Your task to perform on an android device: open app "LinkedIn" (install if not already installed) and enter user name: "dirt@inbox.com" and password: "receptionist" Image 0: 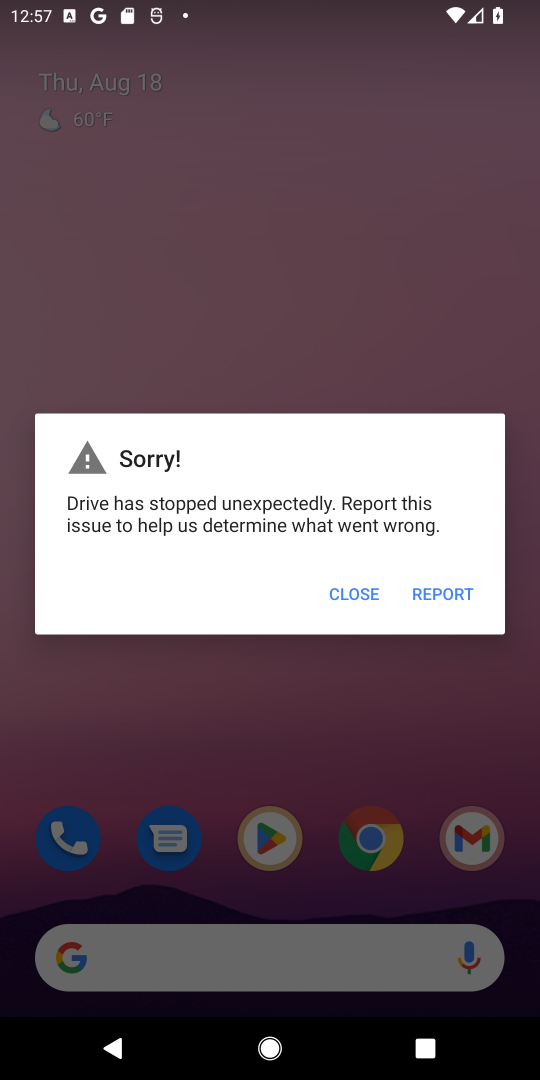
Step 0: click (356, 591)
Your task to perform on an android device: open app "LinkedIn" (install if not already installed) and enter user name: "dirt@inbox.com" and password: "receptionist" Image 1: 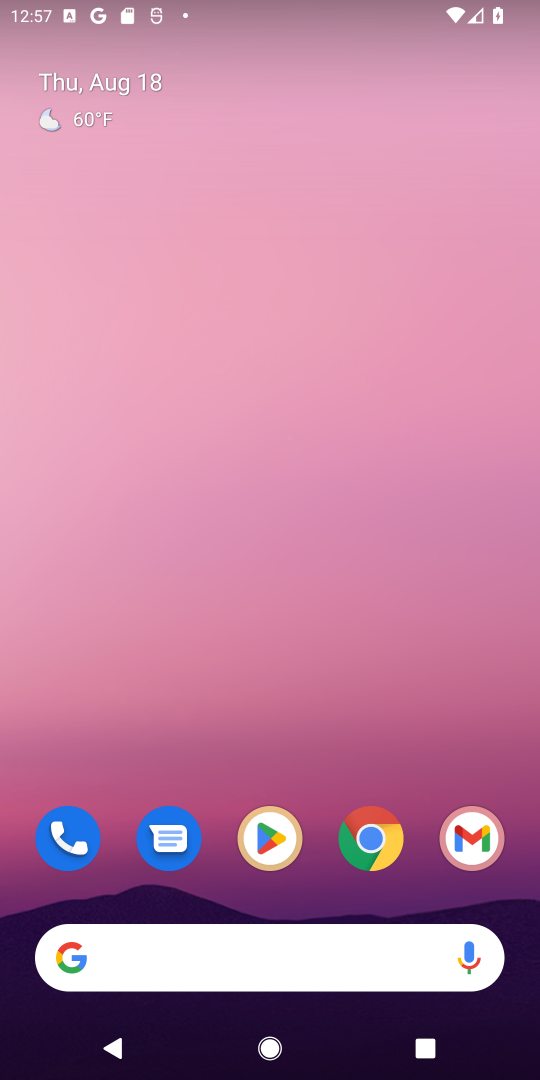
Step 1: click (290, 831)
Your task to perform on an android device: open app "LinkedIn" (install if not already installed) and enter user name: "dirt@inbox.com" and password: "receptionist" Image 2: 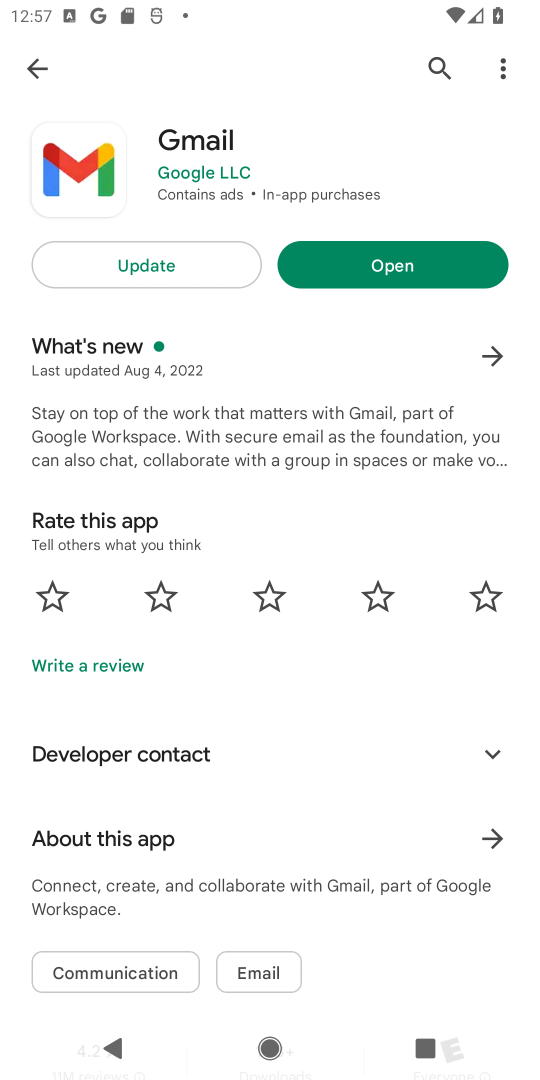
Step 2: click (432, 47)
Your task to perform on an android device: open app "LinkedIn" (install if not already installed) and enter user name: "dirt@inbox.com" and password: "receptionist" Image 3: 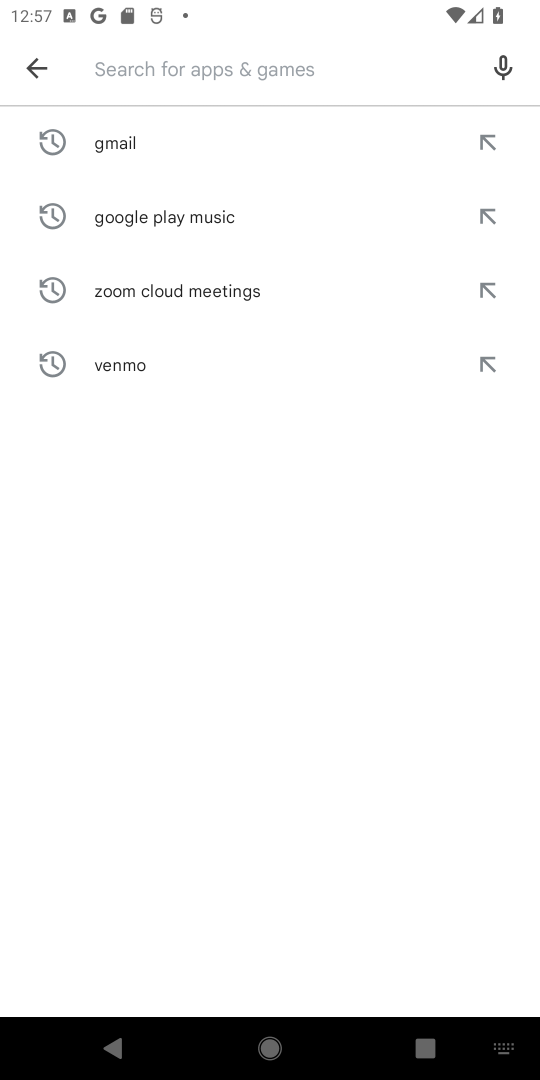
Step 3: type "LinkedIn"
Your task to perform on an android device: open app "LinkedIn" (install if not already installed) and enter user name: "dirt@inbox.com" and password: "receptionist" Image 4: 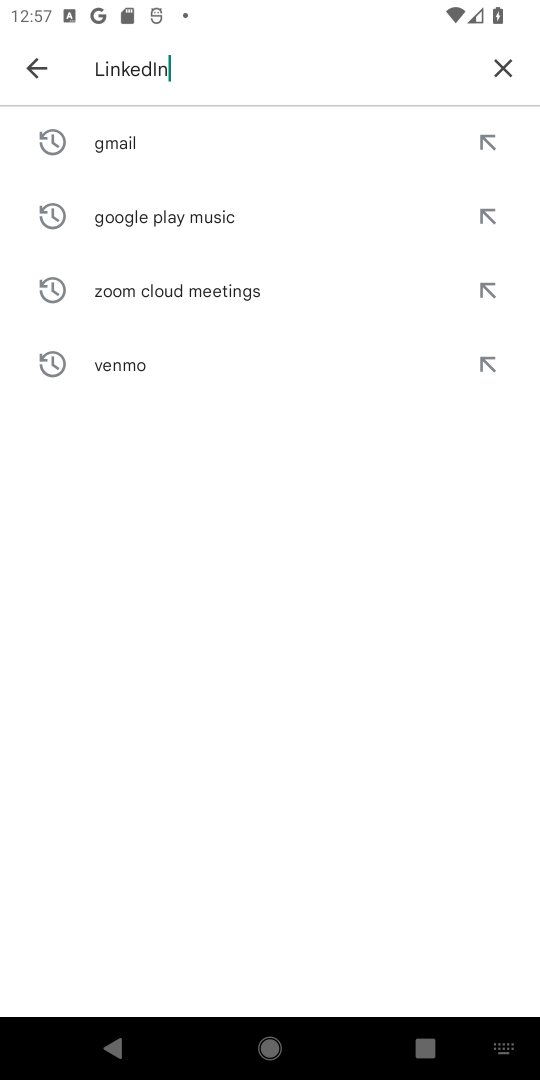
Step 4: type ""
Your task to perform on an android device: open app "LinkedIn" (install if not already installed) and enter user name: "dirt@inbox.com" and password: "receptionist" Image 5: 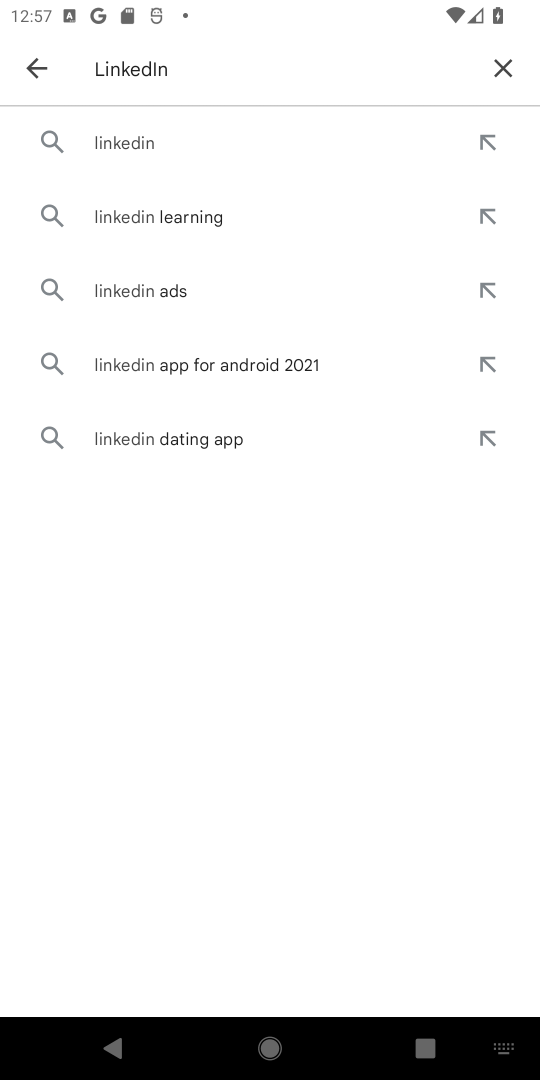
Step 5: click (176, 135)
Your task to perform on an android device: open app "LinkedIn" (install if not already installed) and enter user name: "dirt@inbox.com" and password: "receptionist" Image 6: 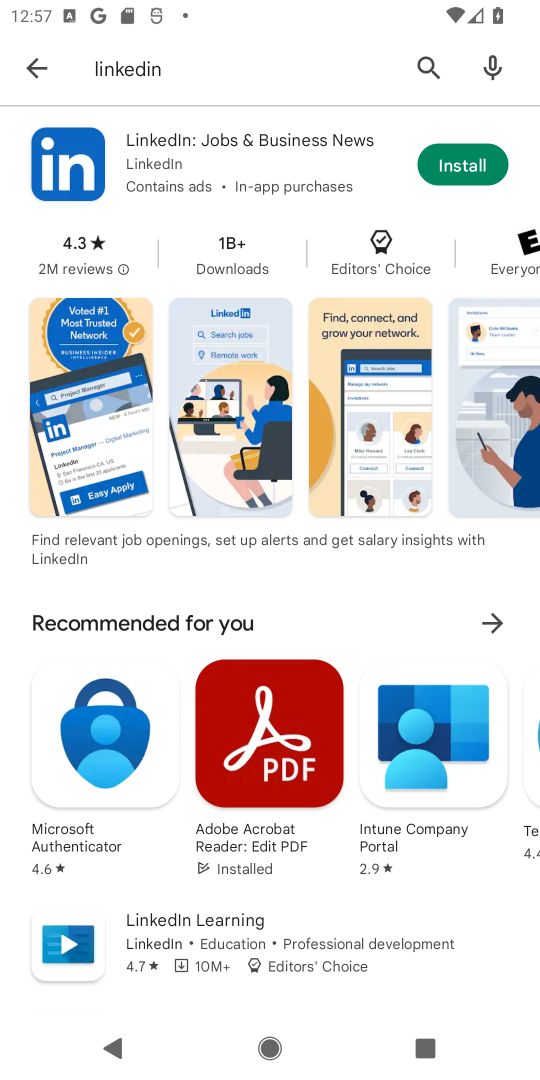
Step 6: click (483, 171)
Your task to perform on an android device: open app "LinkedIn" (install if not already installed) and enter user name: "dirt@inbox.com" and password: "receptionist" Image 7: 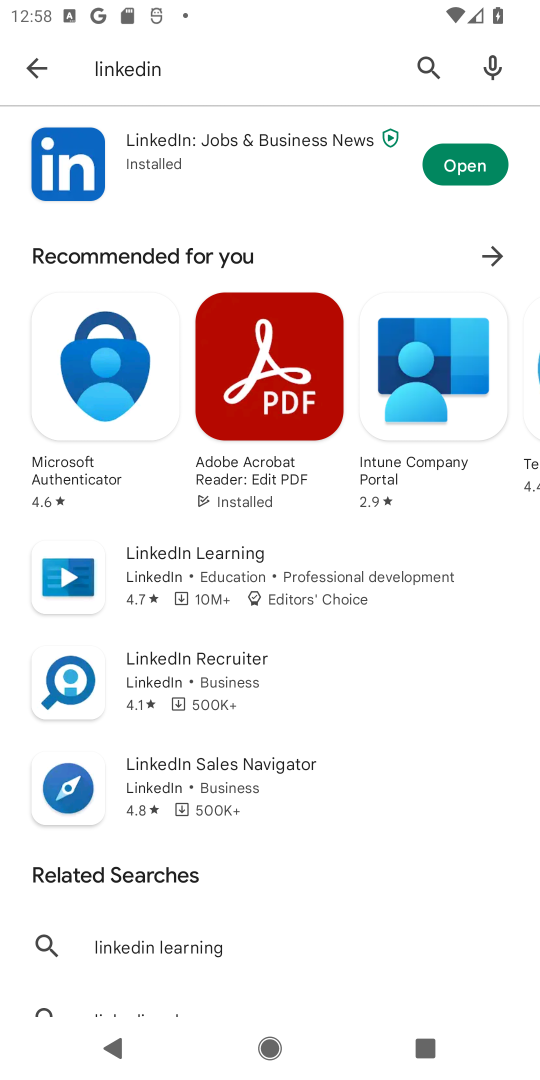
Step 7: click (481, 169)
Your task to perform on an android device: open app "LinkedIn" (install if not already installed) and enter user name: "dirt@inbox.com" and password: "receptionist" Image 8: 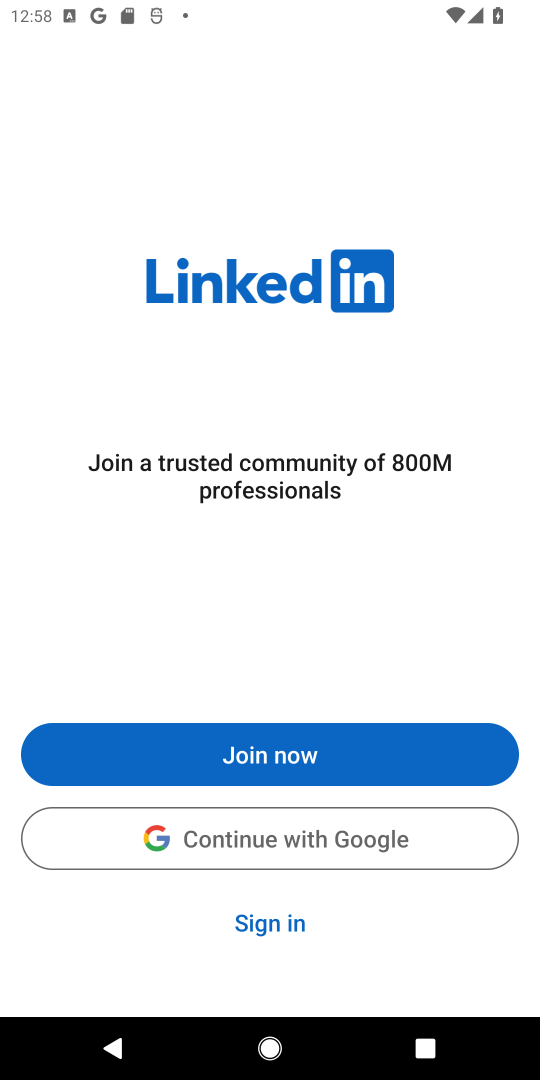
Step 8: task complete